Your task to perform on an android device: Show the shopping cart on ebay.com. Search for sony triple a on ebay.com, select the first entry, add it to the cart, then select checkout. Image 0: 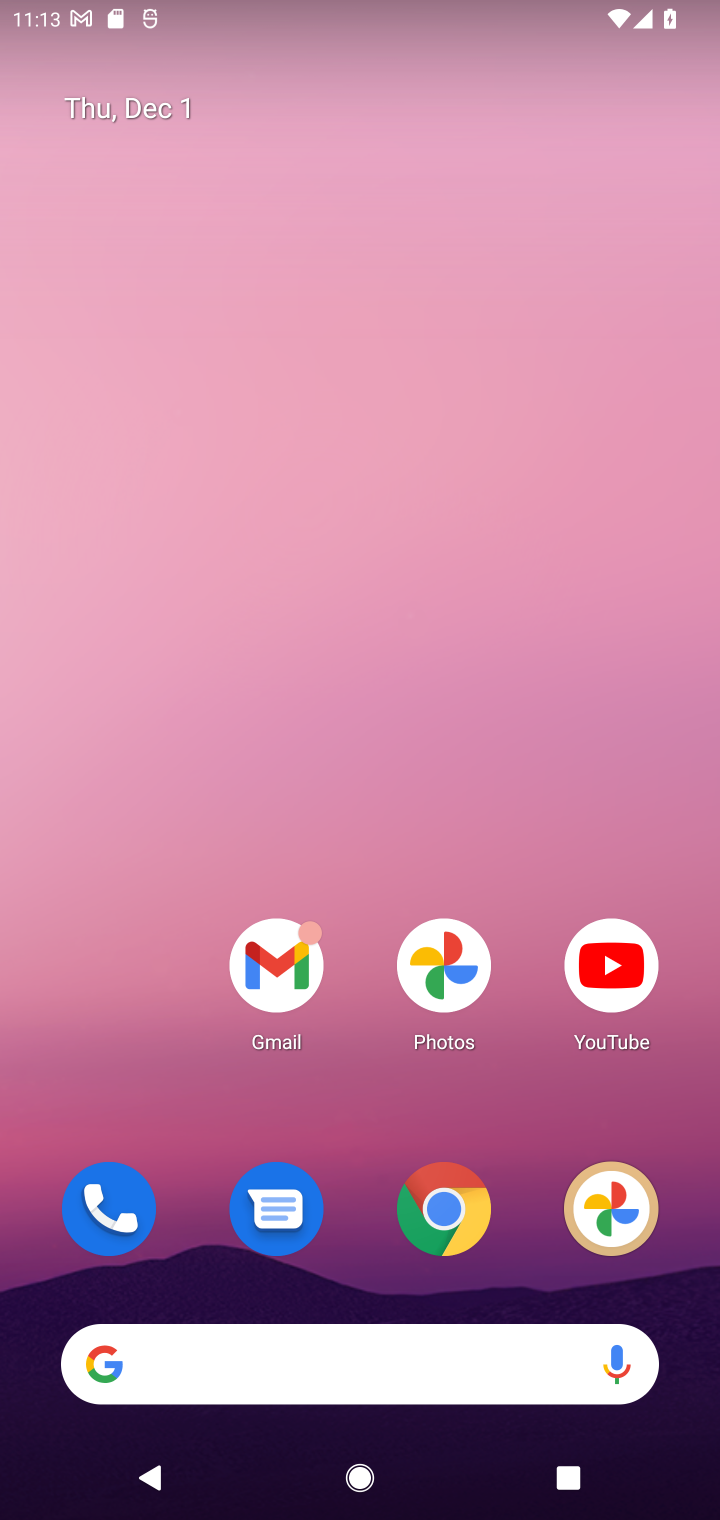
Step 0: click (444, 1223)
Your task to perform on an android device: Show the shopping cart on ebay.com. Search for sony triple a on ebay.com, select the first entry, add it to the cart, then select checkout. Image 1: 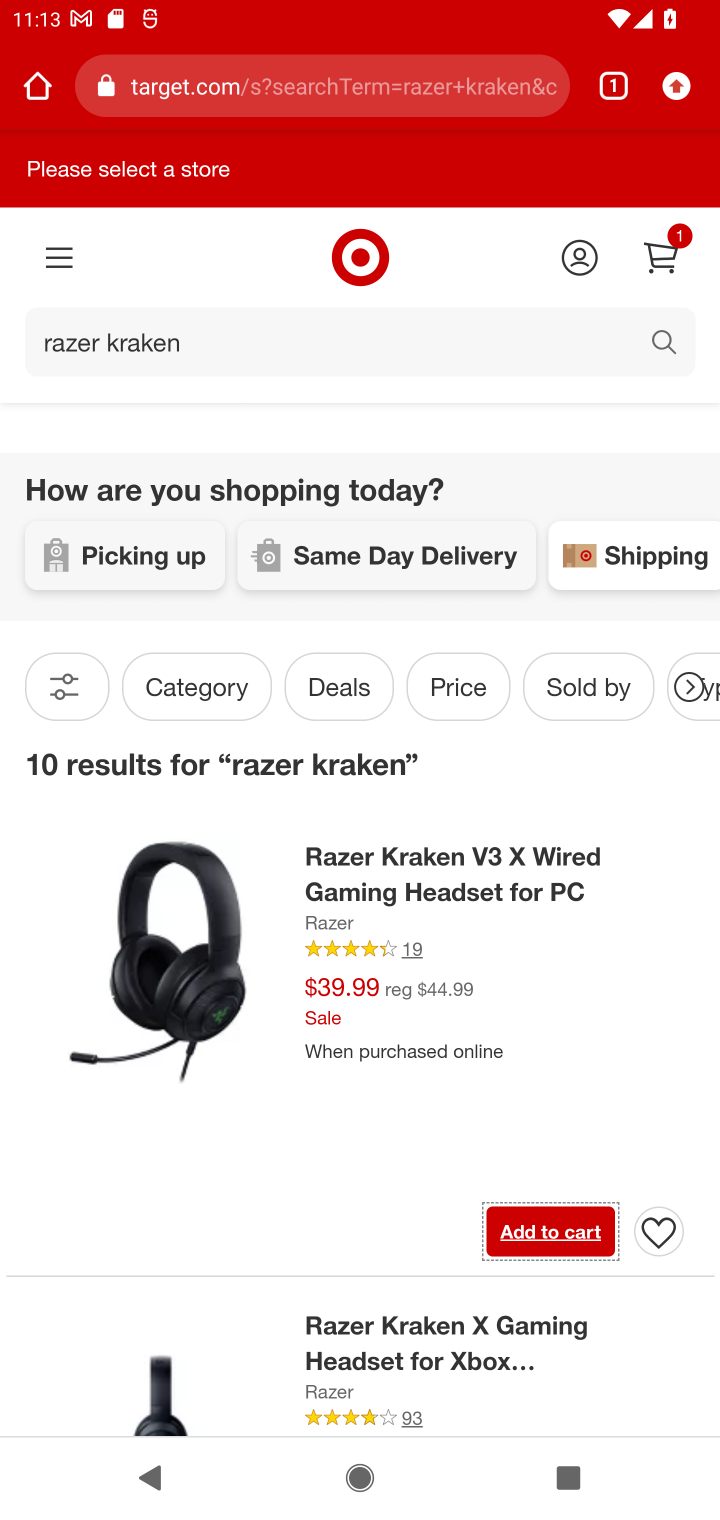
Step 1: click (275, 91)
Your task to perform on an android device: Show the shopping cart on ebay.com. Search for sony triple a on ebay.com, select the first entry, add it to the cart, then select checkout. Image 2: 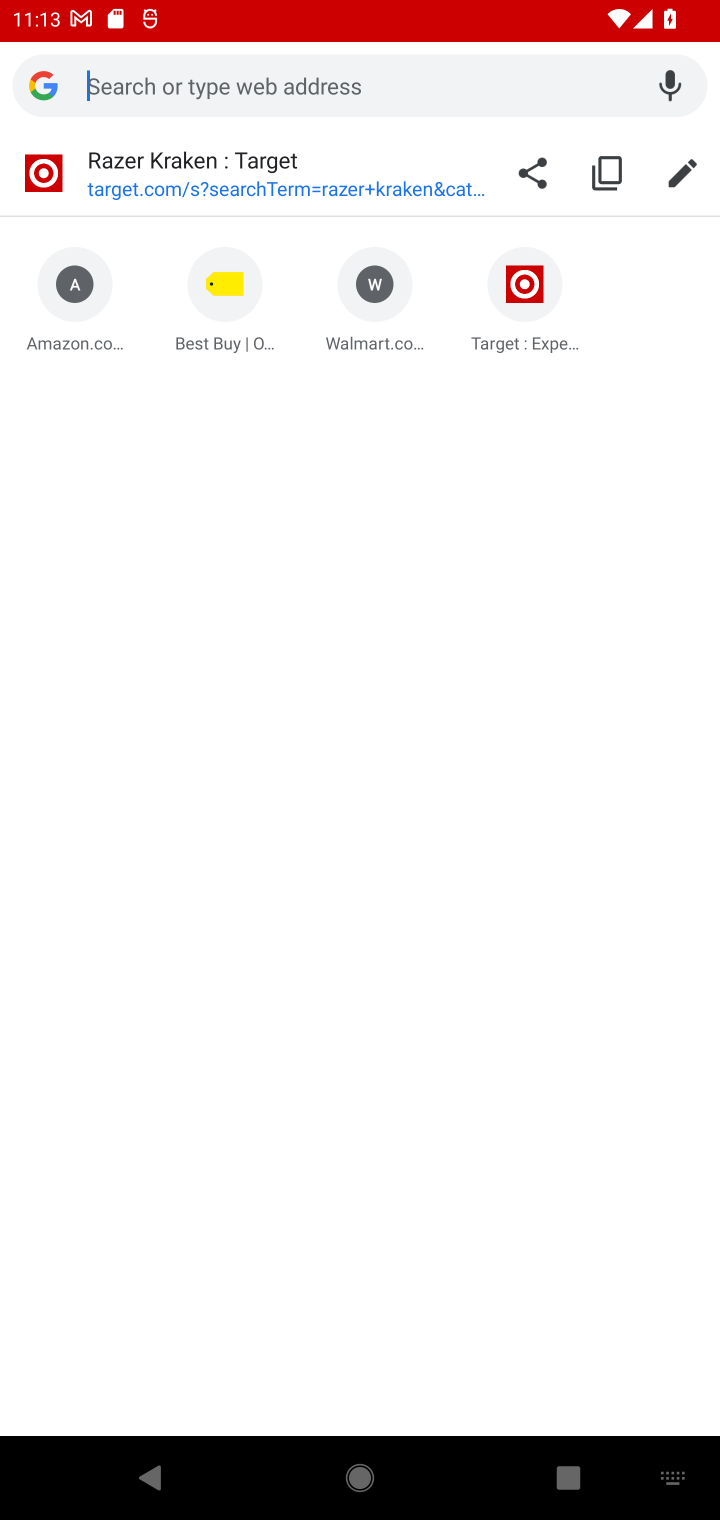
Step 2: type "ebay.com"
Your task to perform on an android device: Show the shopping cart on ebay.com. Search for sony triple a on ebay.com, select the first entry, add it to the cart, then select checkout. Image 3: 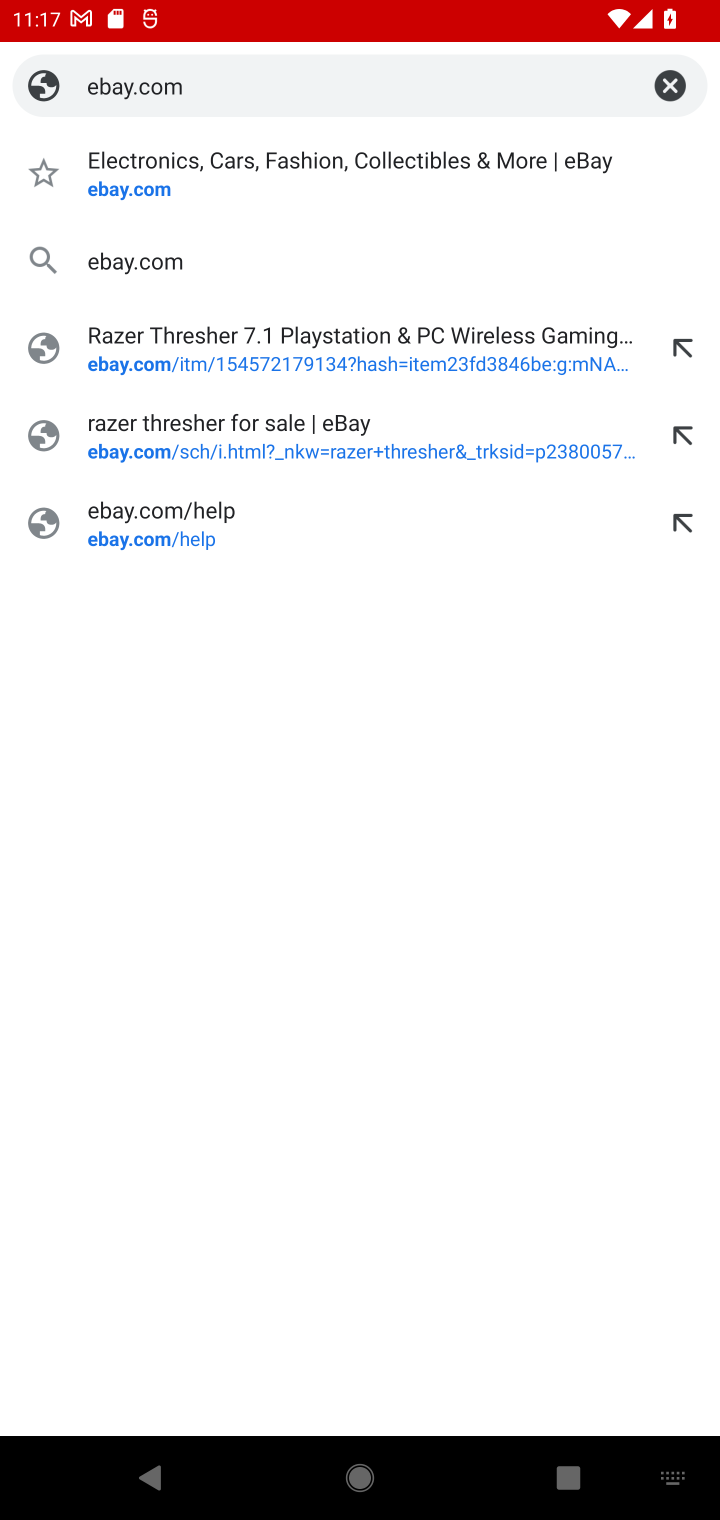
Step 3: task complete